Your task to perform on an android device: Show the shopping cart on newegg.com. Add logitech g910 to the cart on newegg.com Image 0: 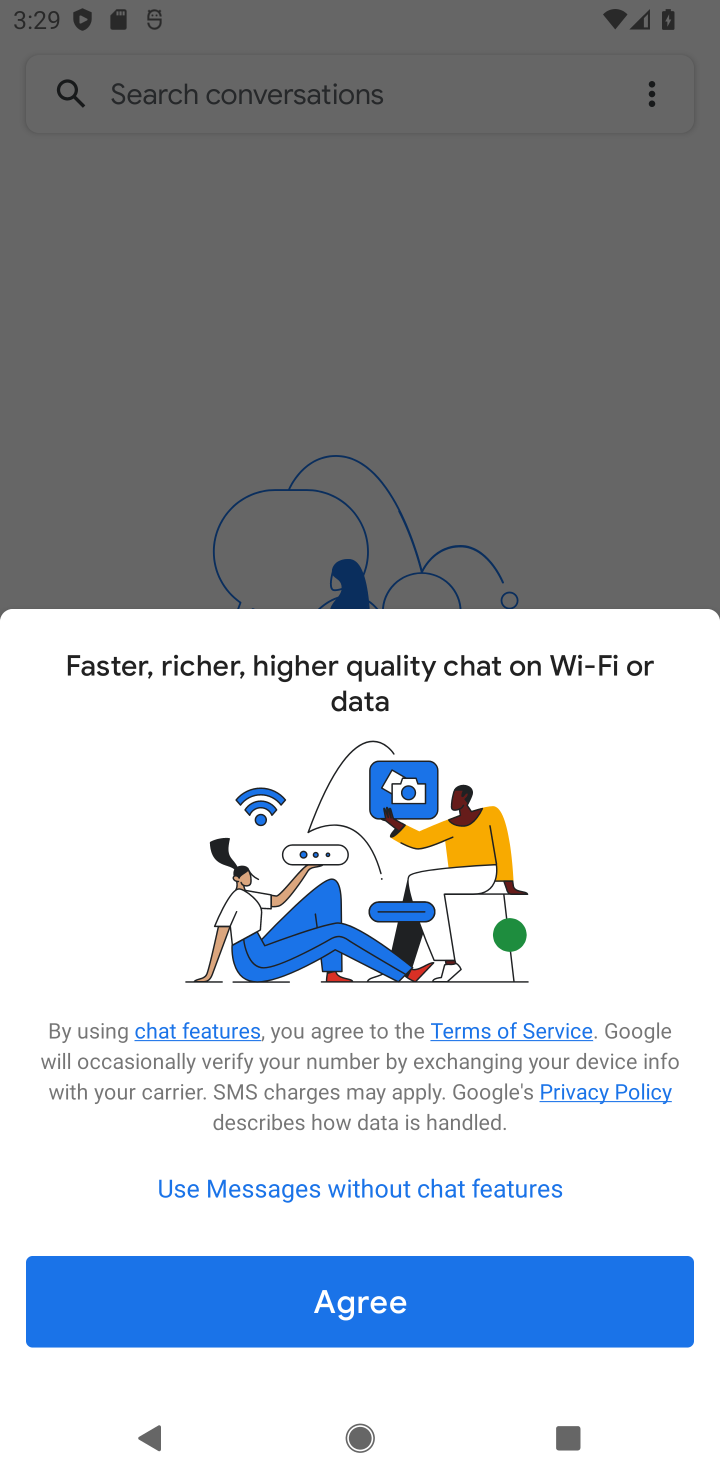
Step 0: press home button
Your task to perform on an android device: Show the shopping cart on newegg.com. Add logitech g910 to the cart on newegg.com Image 1: 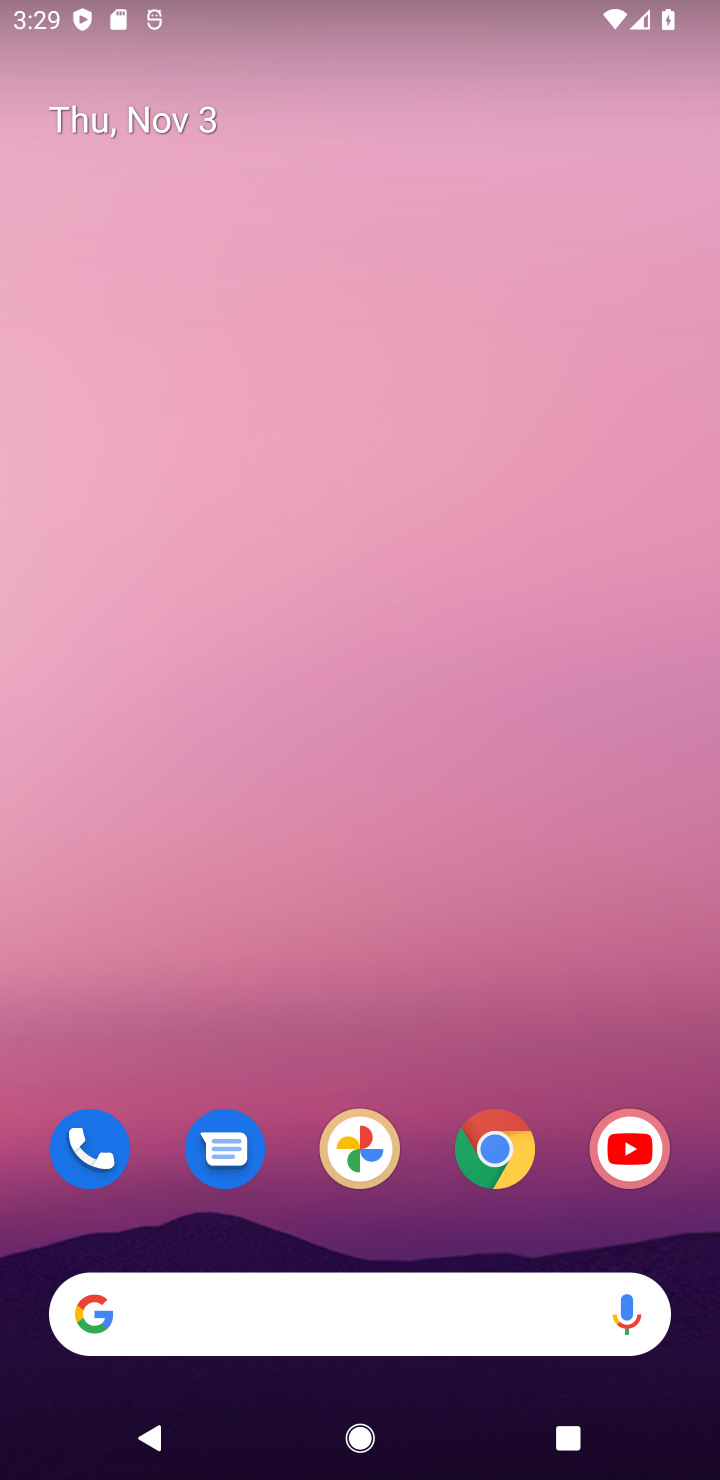
Step 1: click (506, 1138)
Your task to perform on an android device: Show the shopping cart on newegg.com. Add logitech g910 to the cart on newegg.com Image 2: 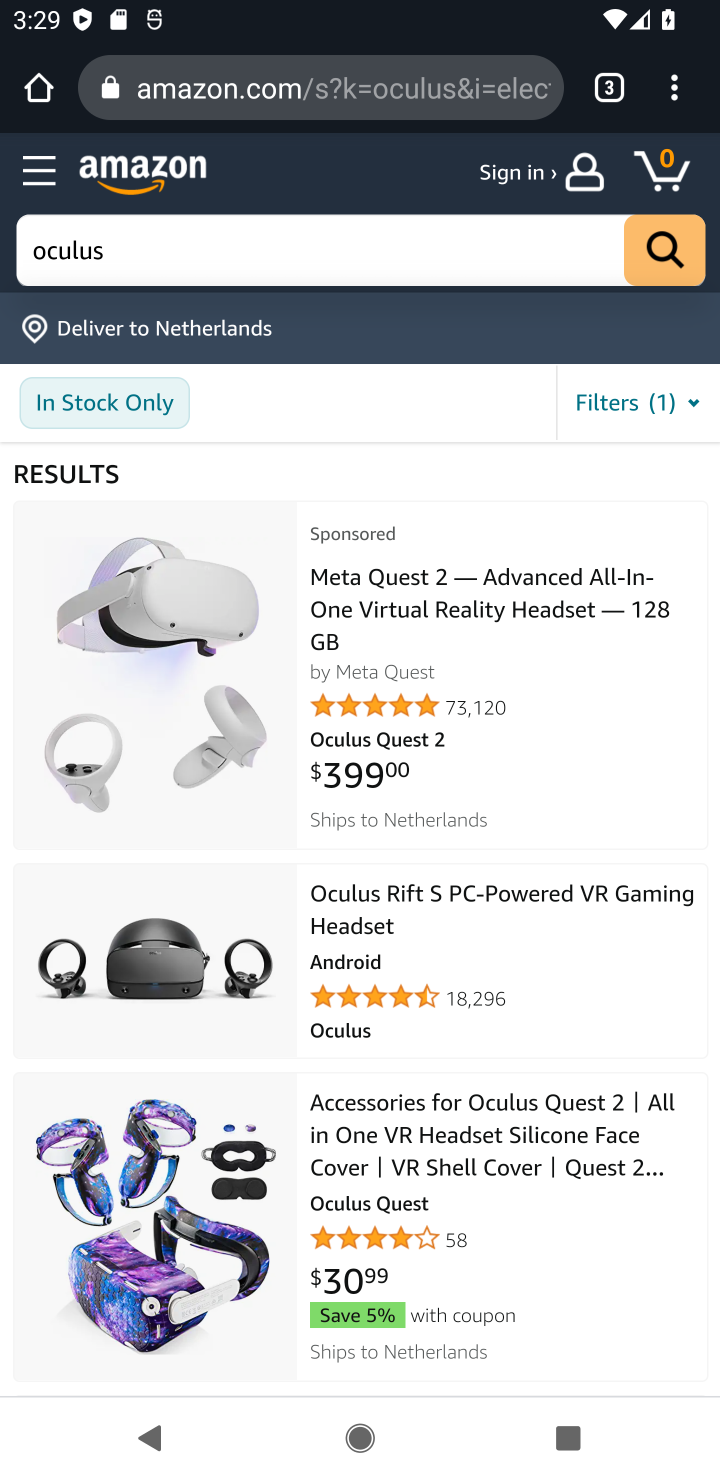
Step 2: click (608, 89)
Your task to perform on an android device: Show the shopping cart on newegg.com. Add logitech g910 to the cart on newegg.com Image 3: 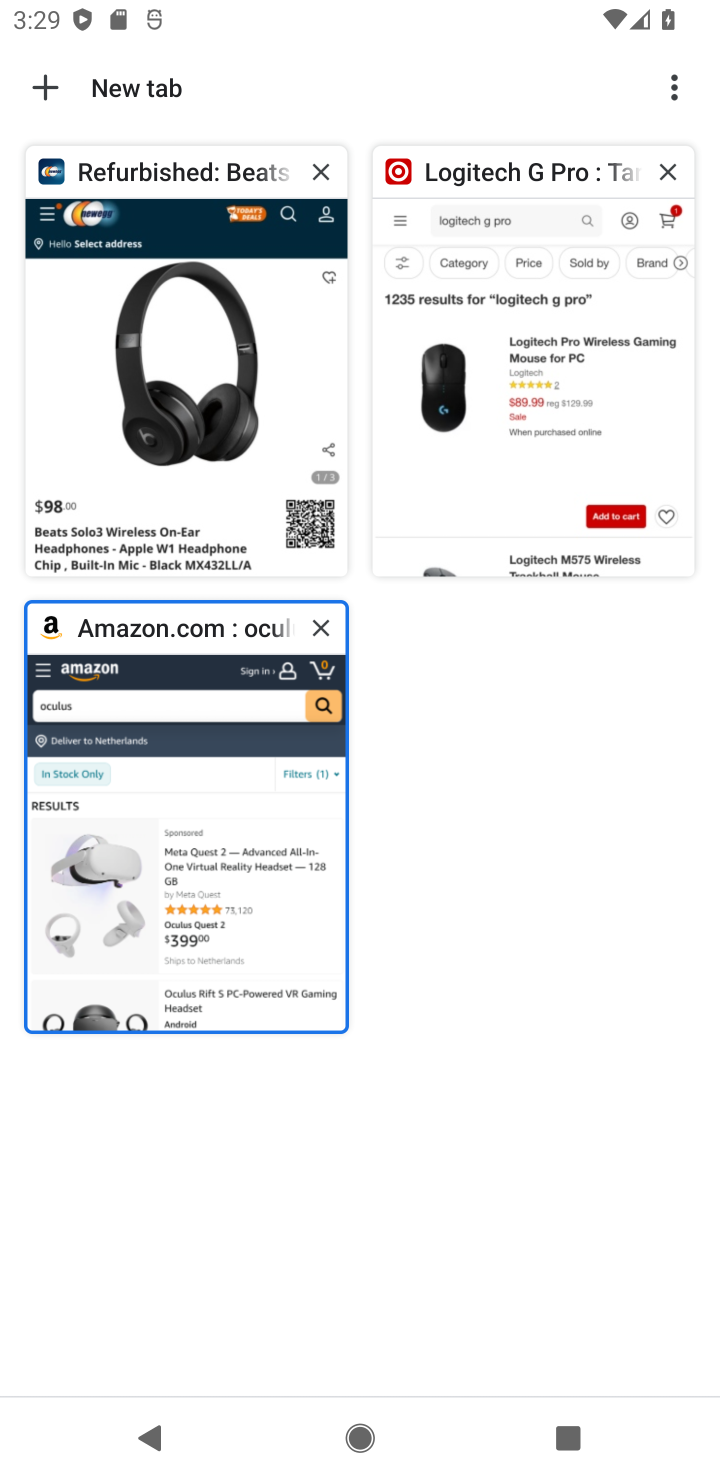
Step 3: click (191, 423)
Your task to perform on an android device: Show the shopping cart on newegg.com. Add logitech g910 to the cart on newegg.com Image 4: 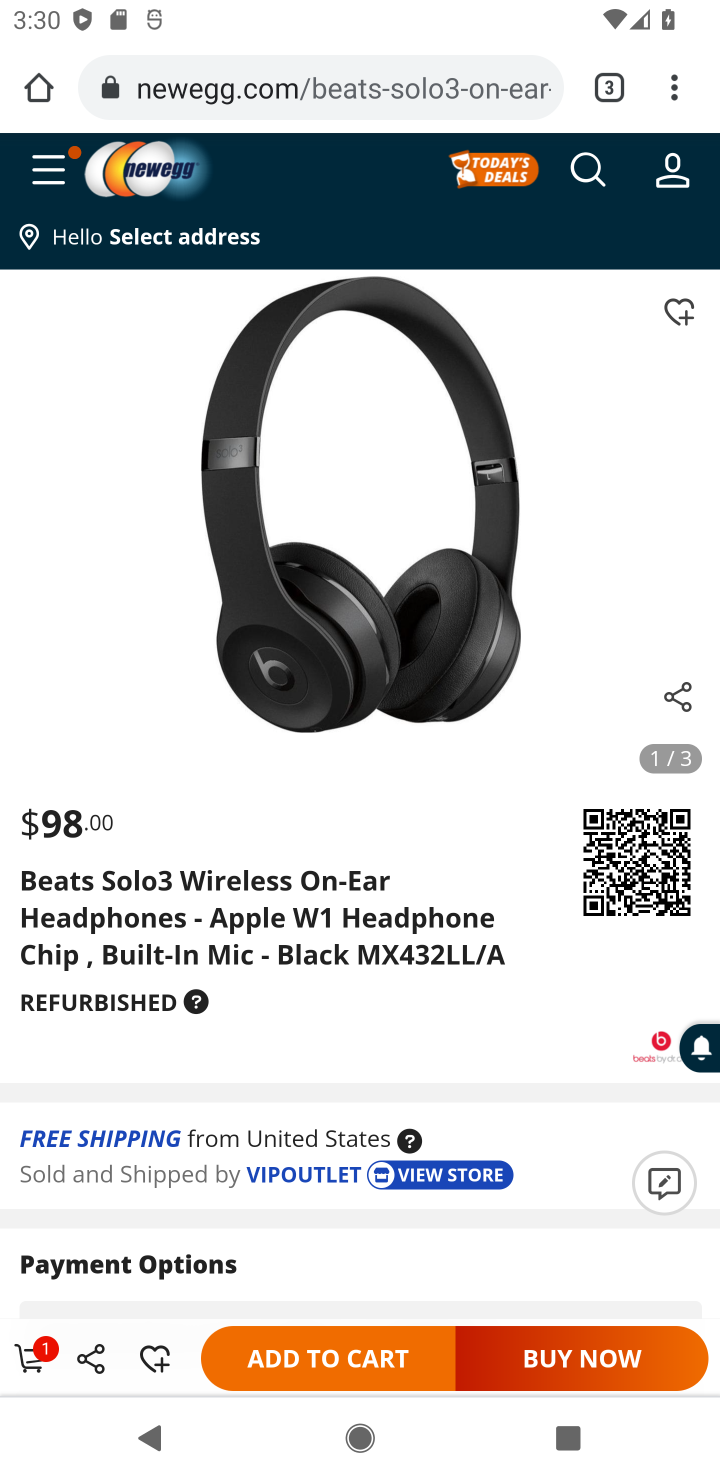
Step 4: click (588, 172)
Your task to perform on an android device: Show the shopping cart on newegg.com. Add logitech g910 to the cart on newegg.com Image 5: 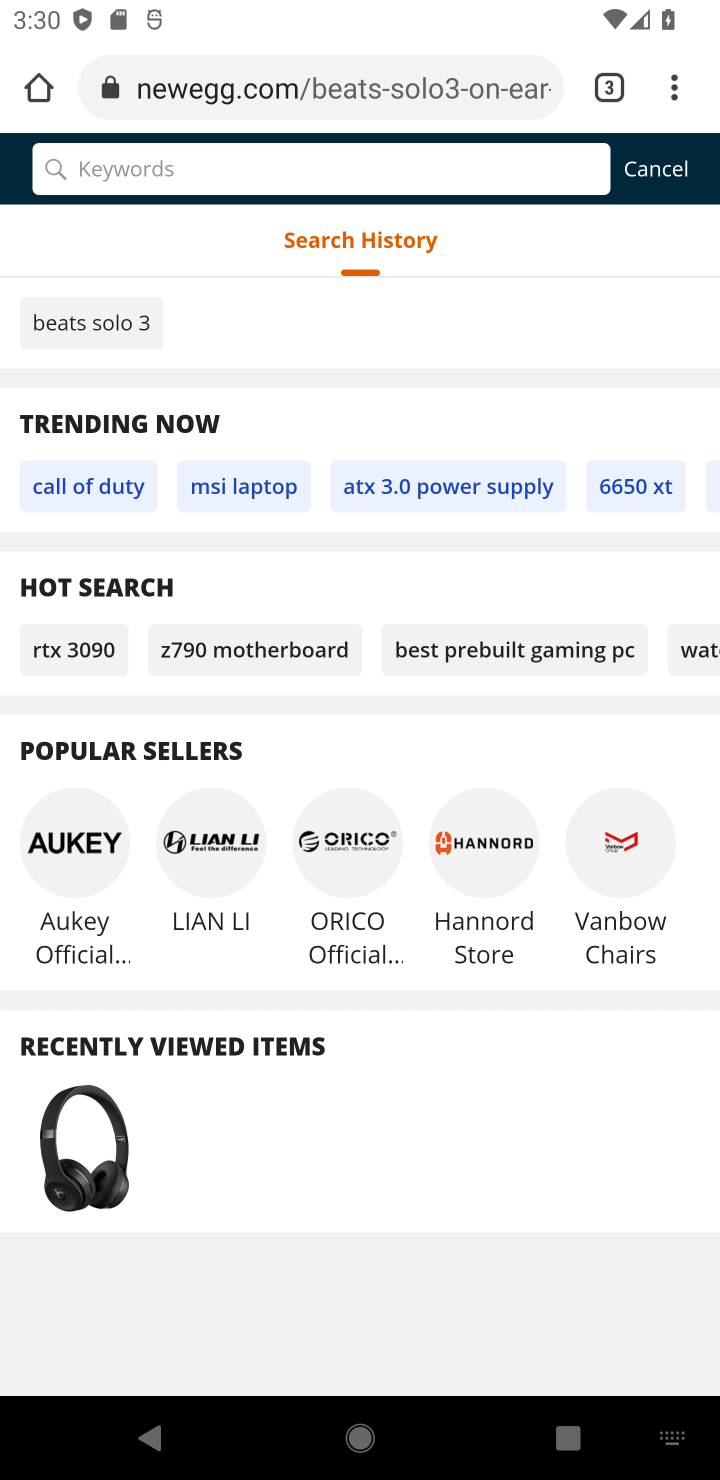
Step 5: type "logitech g910"
Your task to perform on an android device: Show the shopping cart on newegg.com. Add logitech g910 to the cart on newegg.com Image 6: 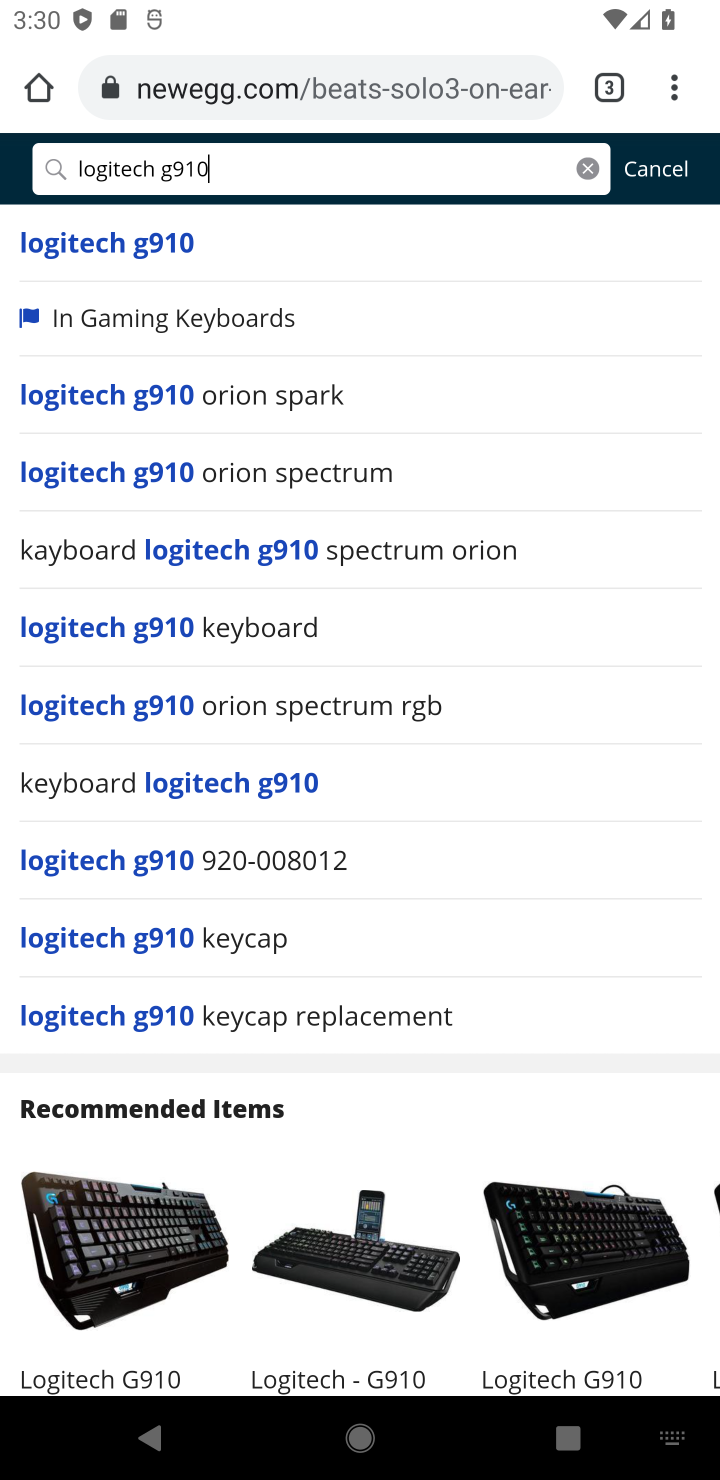
Step 6: click (150, 249)
Your task to perform on an android device: Show the shopping cart on newegg.com. Add logitech g910 to the cart on newegg.com Image 7: 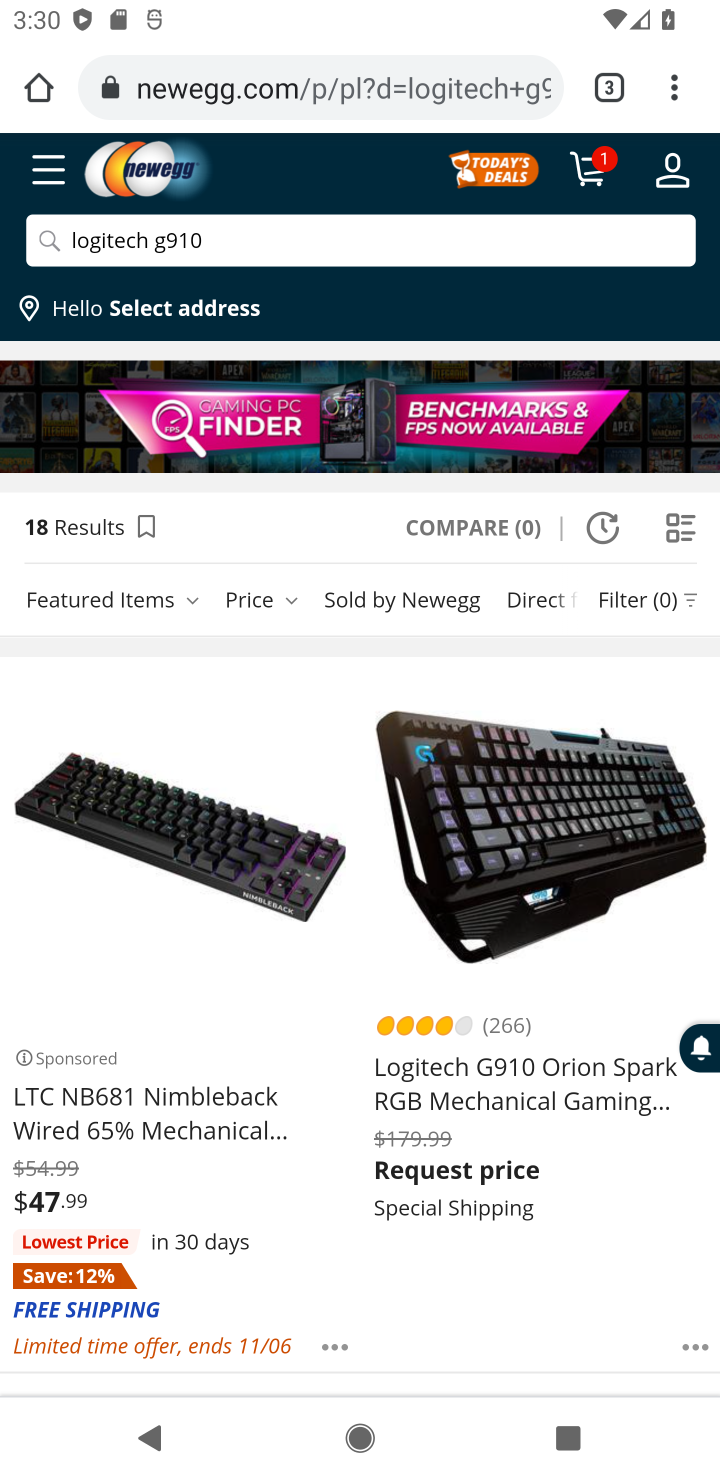
Step 7: click (477, 1115)
Your task to perform on an android device: Show the shopping cart on newegg.com. Add logitech g910 to the cart on newegg.com Image 8: 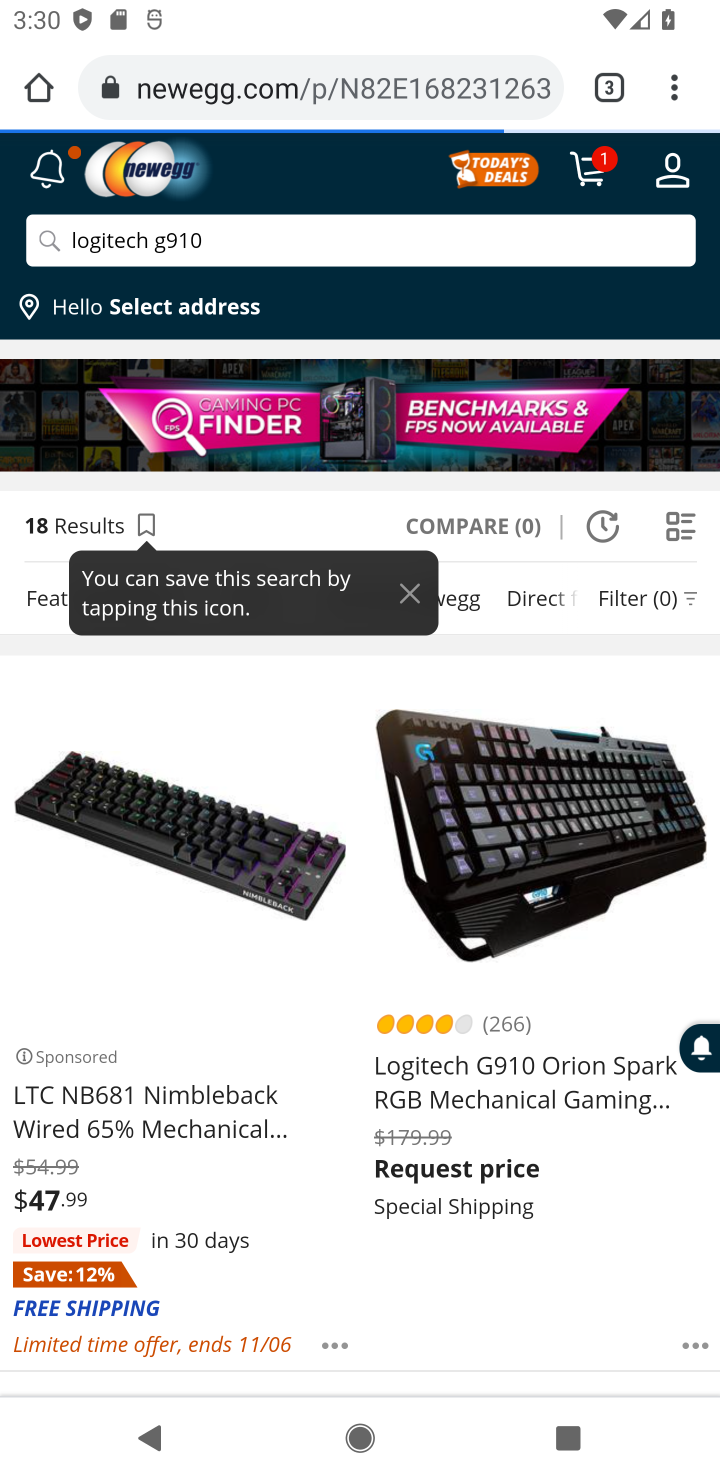
Step 8: click (470, 1077)
Your task to perform on an android device: Show the shopping cart on newegg.com. Add logitech g910 to the cart on newegg.com Image 9: 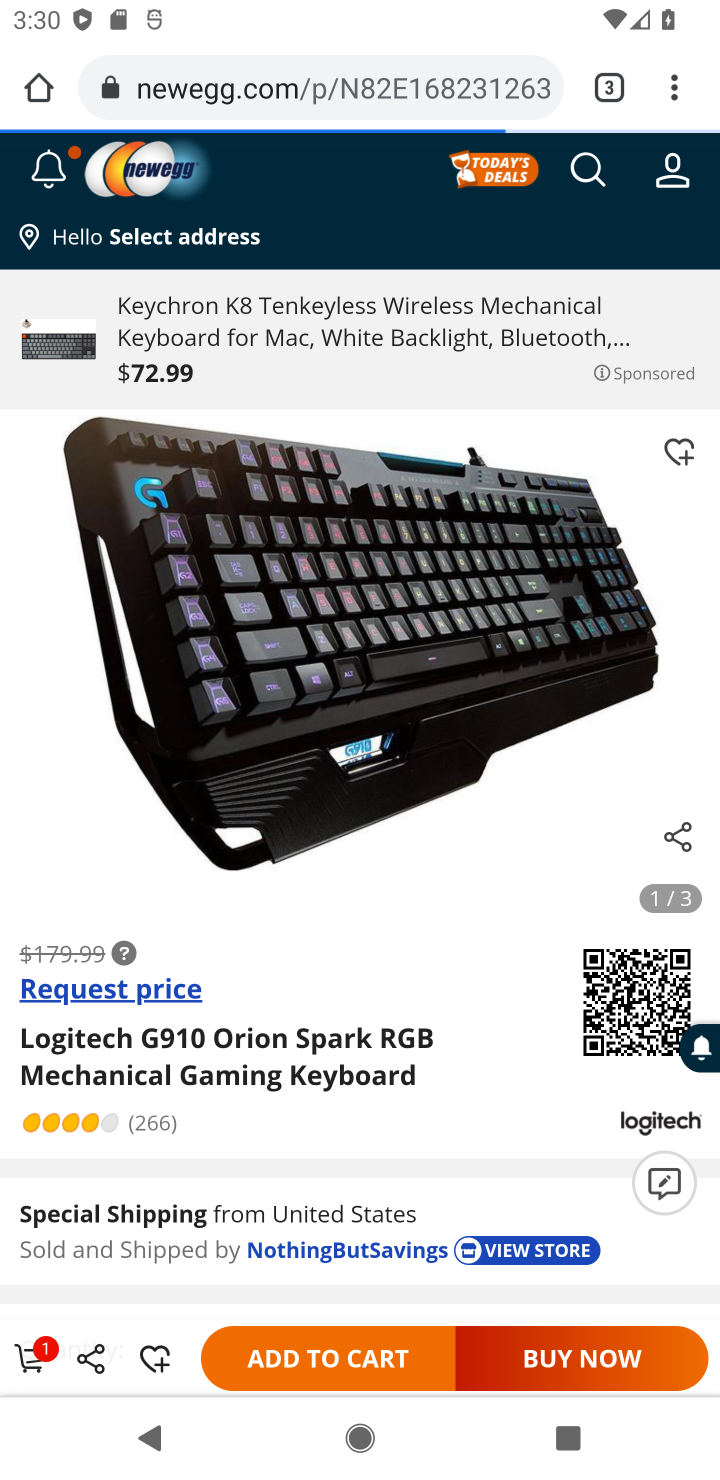
Step 9: click (335, 1370)
Your task to perform on an android device: Show the shopping cart on newegg.com. Add logitech g910 to the cart on newegg.com Image 10: 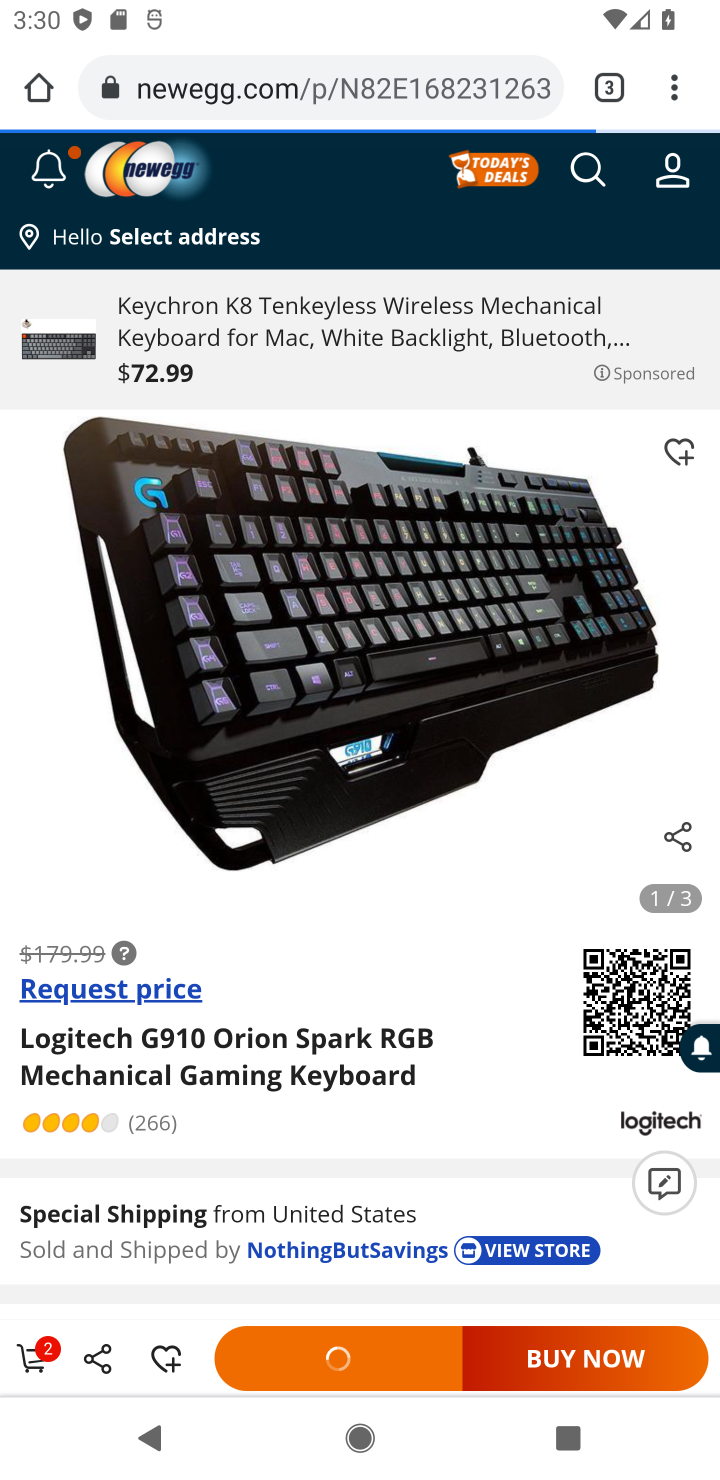
Step 10: click (335, 1370)
Your task to perform on an android device: Show the shopping cart on newegg.com. Add logitech g910 to the cart on newegg.com Image 11: 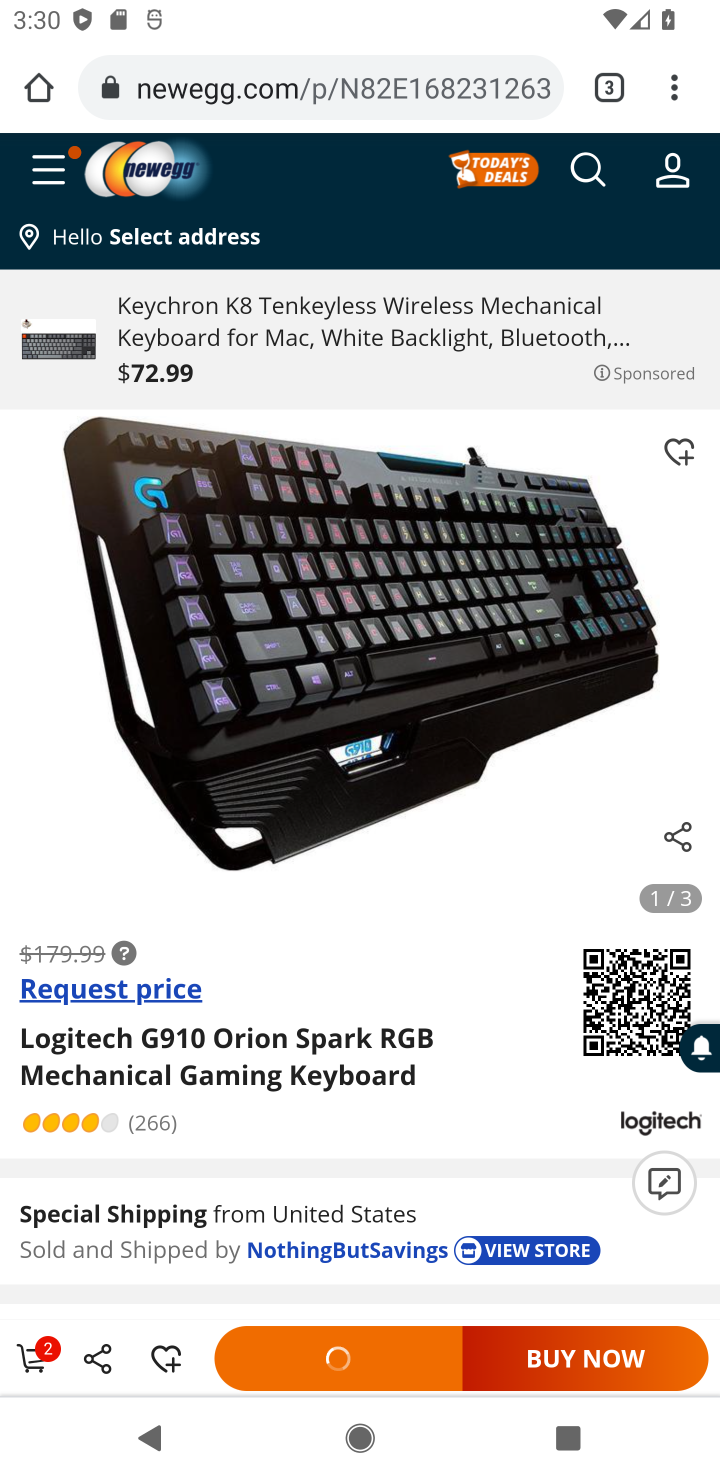
Step 11: task complete